Your task to perform on an android device: Search for the best coffee tables on Crate & Barrel Image 0: 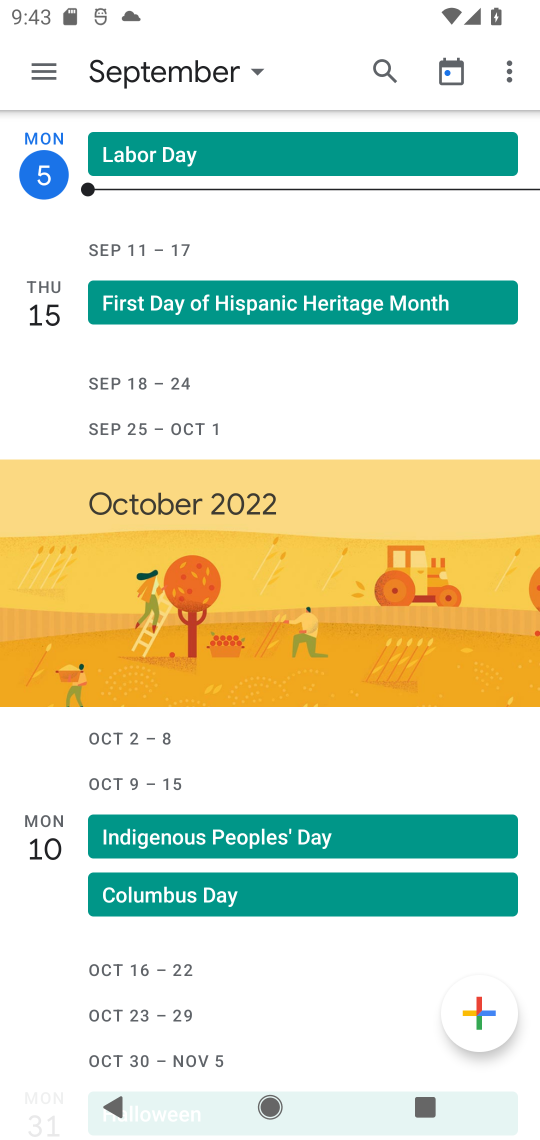
Step 0: press home button
Your task to perform on an android device: Search for the best coffee tables on Crate & Barrel Image 1: 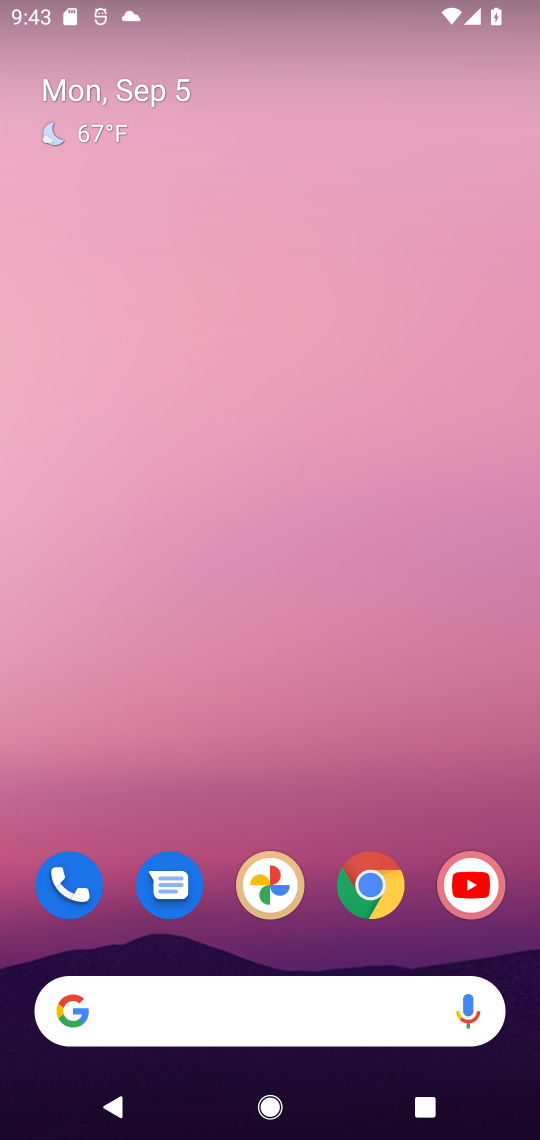
Step 1: click (342, 14)
Your task to perform on an android device: Search for the best coffee tables on Crate & Barrel Image 2: 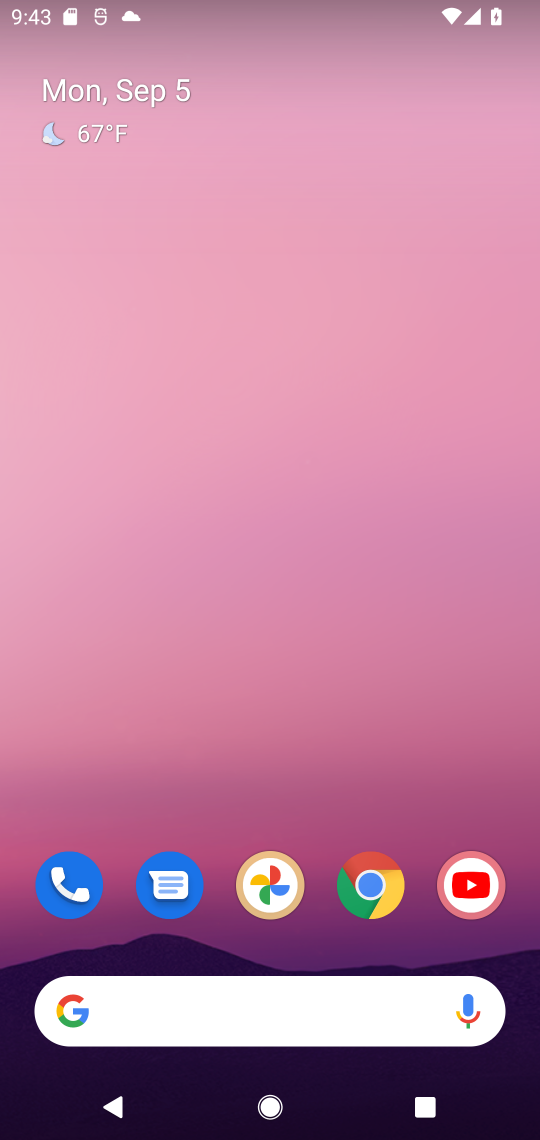
Step 2: click (274, 45)
Your task to perform on an android device: Search for the best coffee tables on Crate & Barrel Image 3: 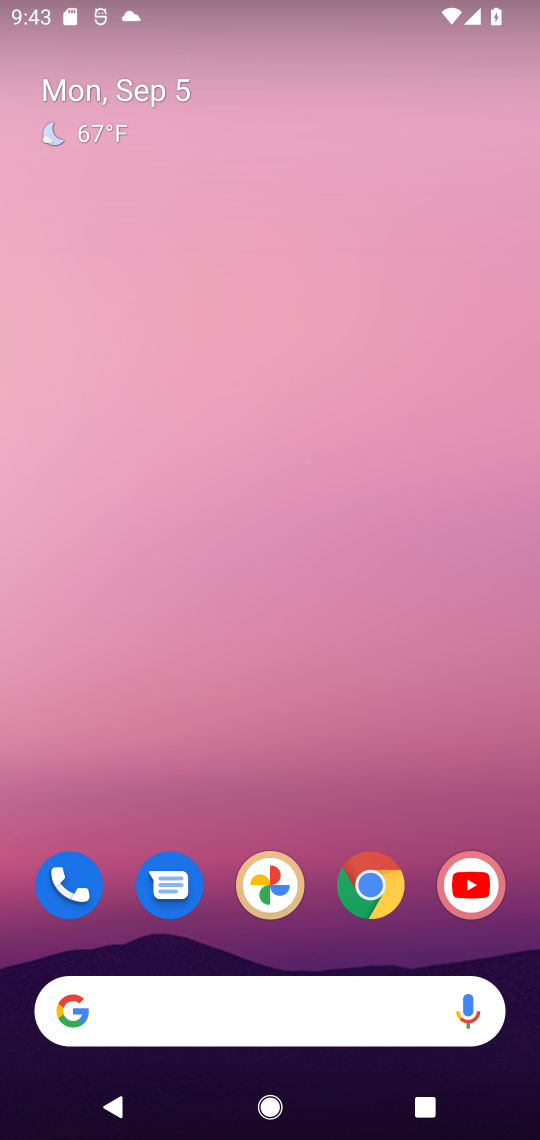
Step 3: drag from (301, 938) to (393, 45)
Your task to perform on an android device: Search for the best coffee tables on Crate & Barrel Image 4: 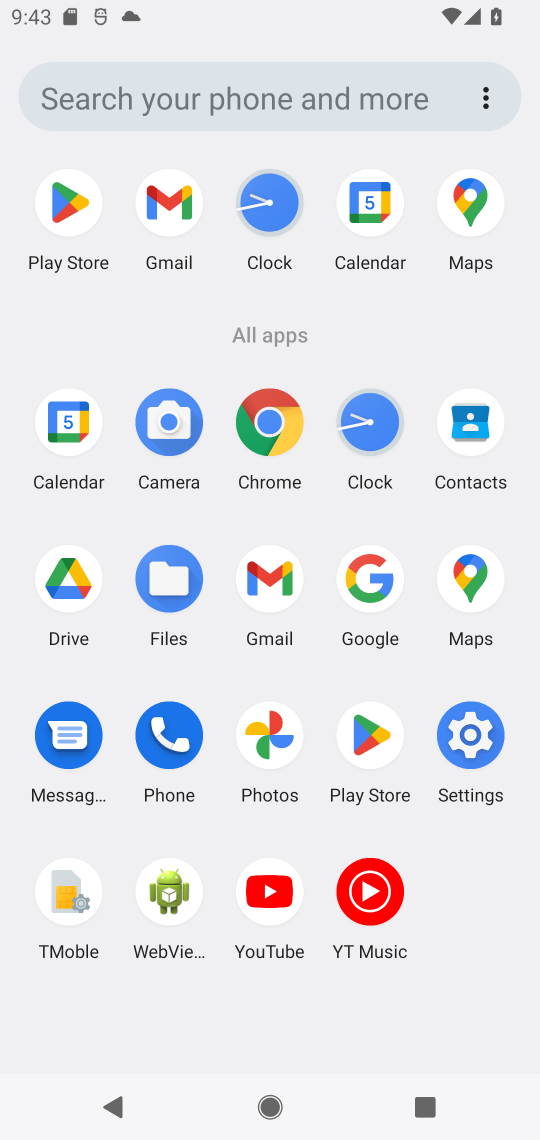
Step 4: click (360, 579)
Your task to perform on an android device: Search for the best coffee tables on Crate & Barrel Image 5: 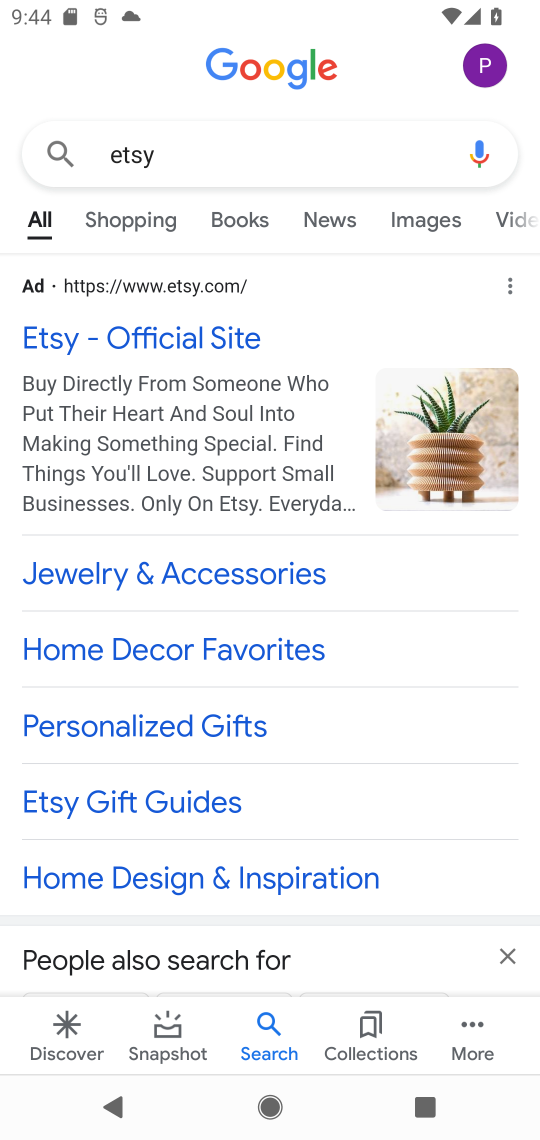
Step 5: click (276, 152)
Your task to perform on an android device: Search for the best coffee tables on Crate & Barrel Image 6: 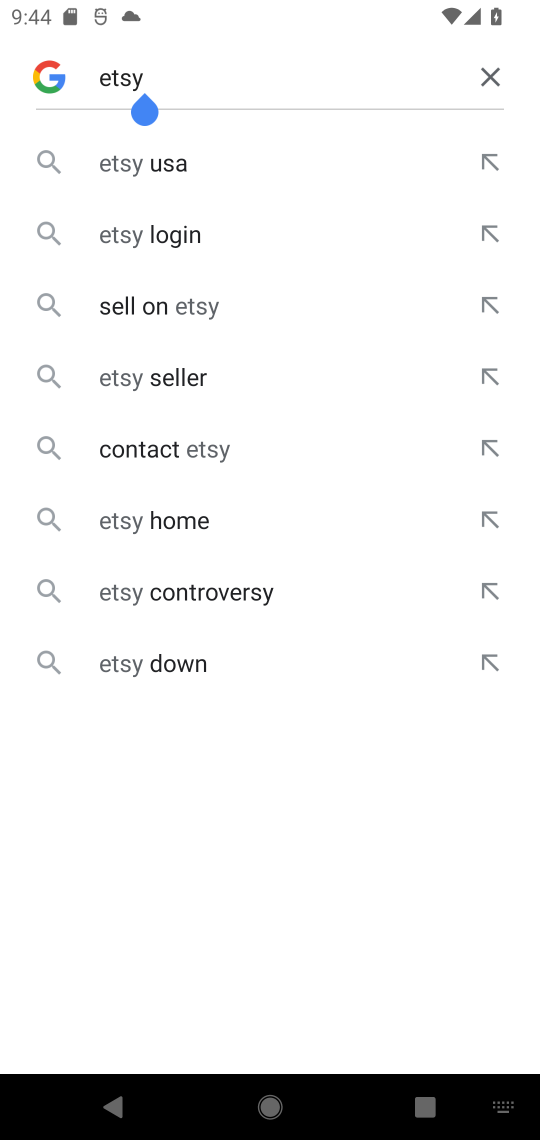
Step 6: click (493, 78)
Your task to perform on an android device: Search for the best coffee tables on Crate & Barrel Image 7: 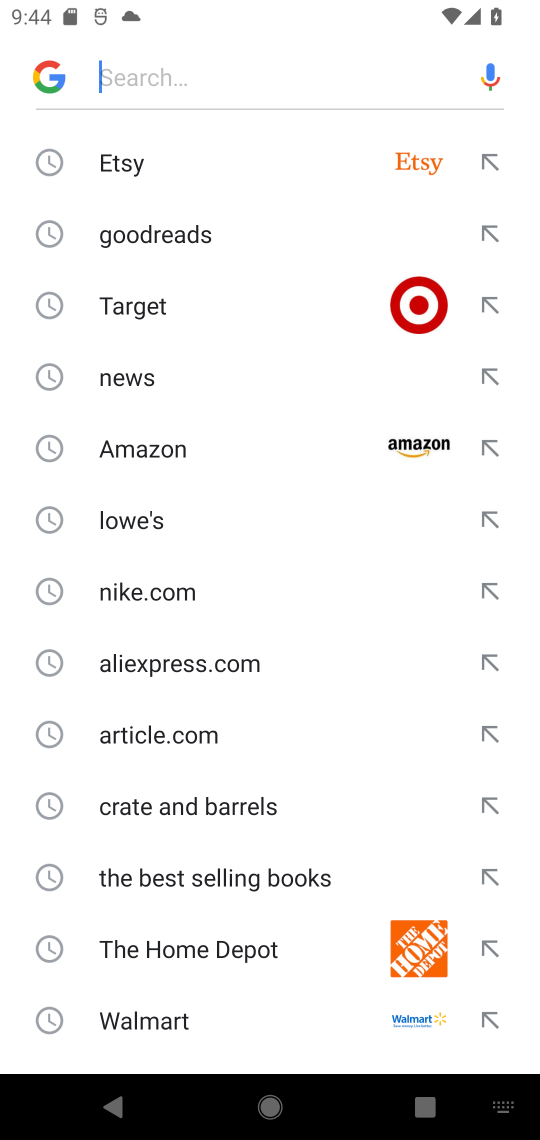
Step 7: type "Crate & Barrel"
Your task to perform on an android device: Search for the best coffee tables on Crate & Barrel Image 8: 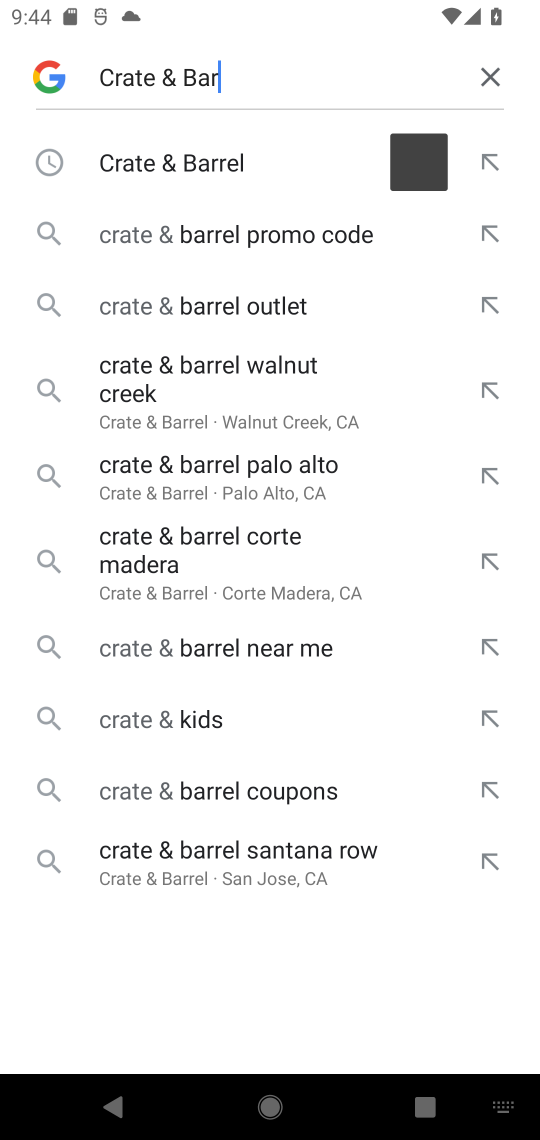
Step 8: type ""
Your task to perform on an android device: Search for the best coffee tables on Crate & Barrel Image 9: 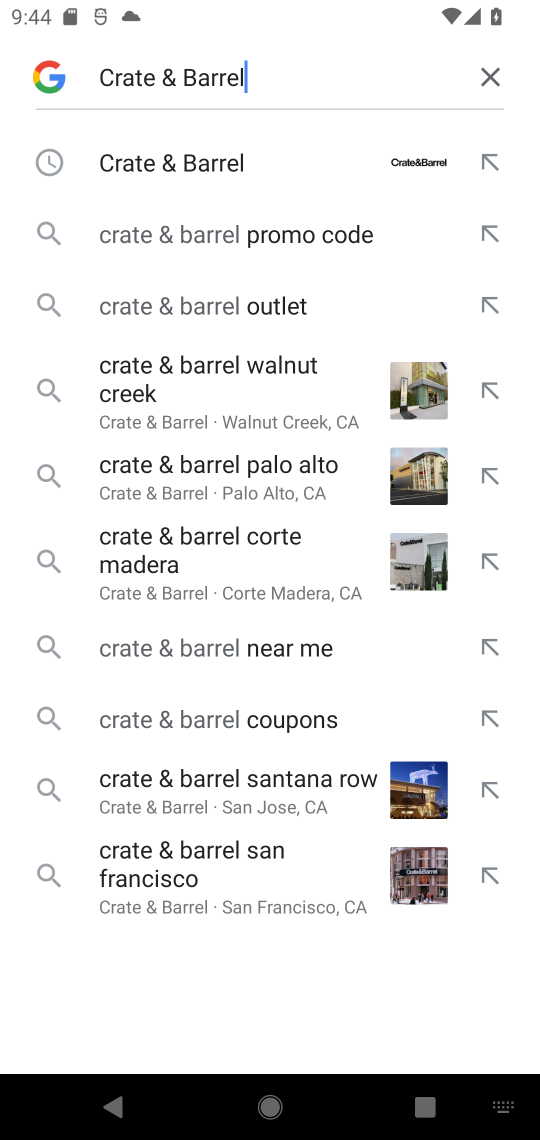
Step 9: click (188, 165)
Your task to perform on an android device: Search for the best coffee tables on Crate & Barrel Image 10: 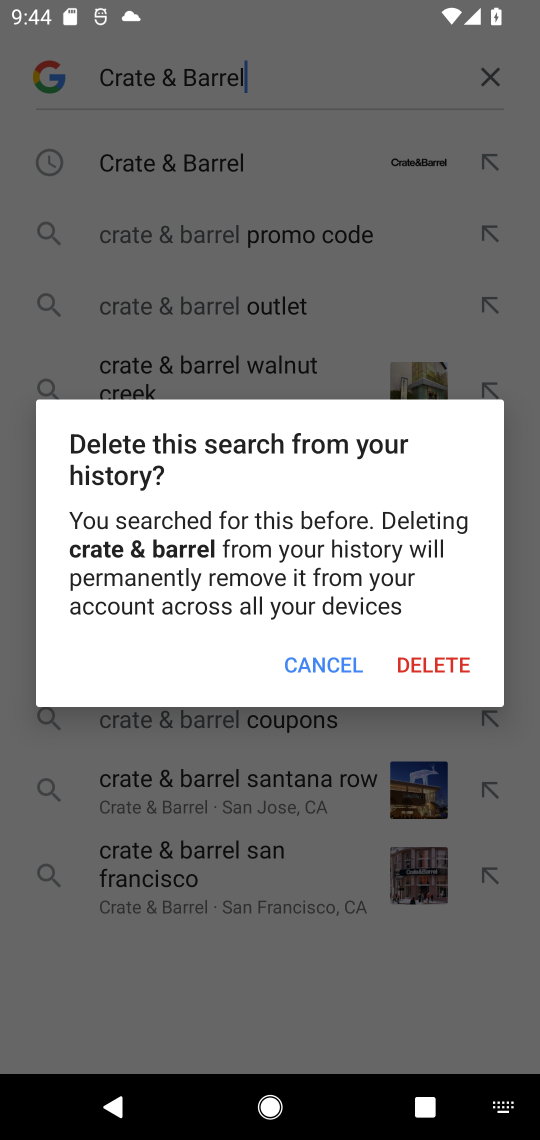
Step 10: click (305, 659)
Your task to perform on an android device: Search for the best coffee tables on Crate & Barrel Image 11: 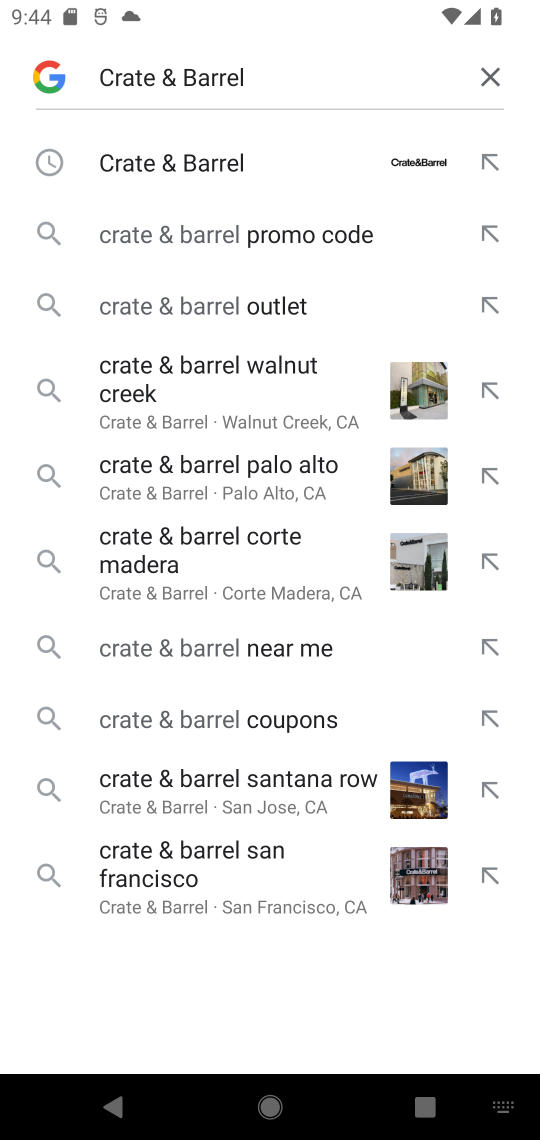
Step 11: click (189, 160)
Your task to perform on an android device: Search for the best coffee tables on Crate & Barrel Image 12: 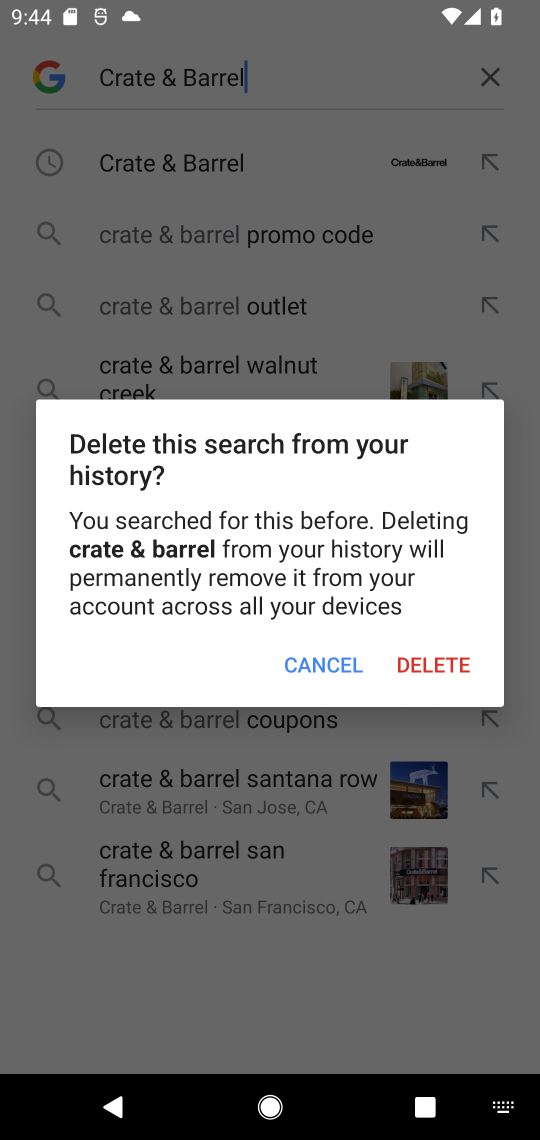
Step 12: click (342, 659)
Your task to perform on an android device: Search for the best coffee tables on Crate & Barrel Image 13: 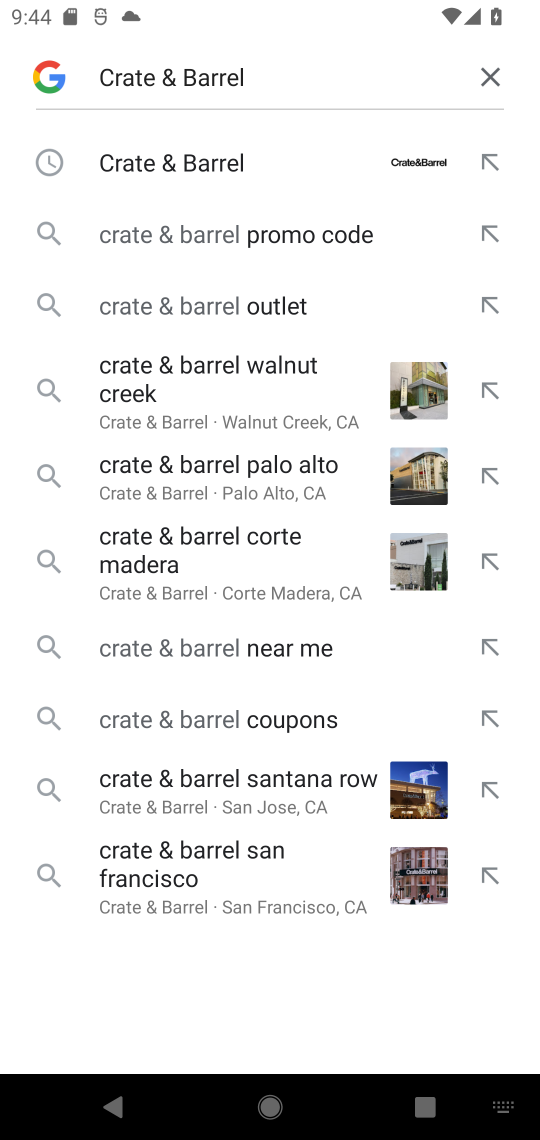
Step 13: click (138, 149)
Your task to perform on an android device: Search for the best coffee tables on Crate & Barrel Image 14: 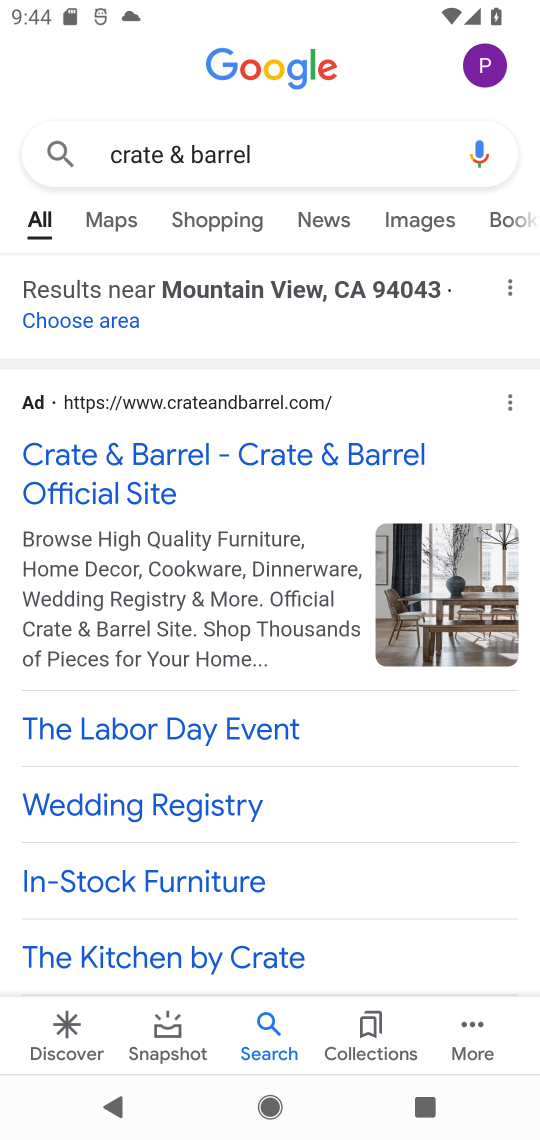
Step 14: click (143, 449)
Your task to perform on an android device: Search for the best coffee tables on Crate & Barrel Image 15: 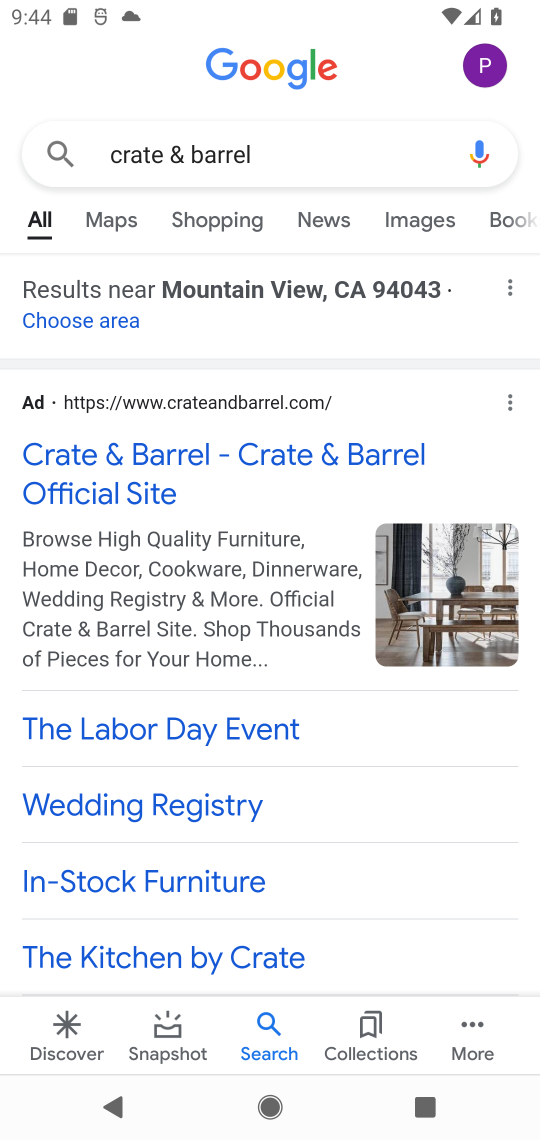
Step 15: click (96, 448)
Your task to perform on an android device: Search for the best coffee tables on Crate & Barrel Image 16: 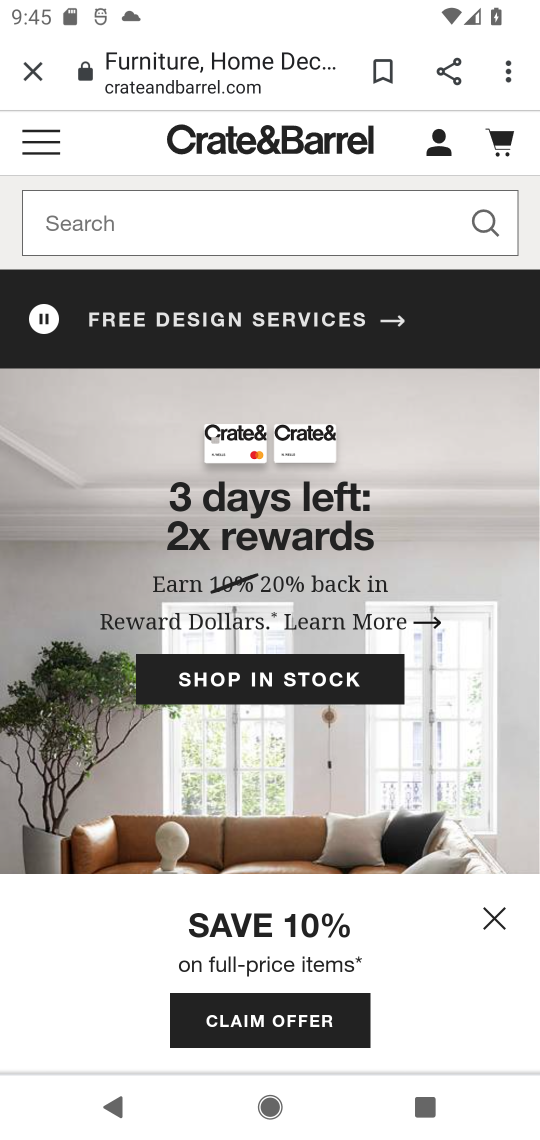
Step 16: click (262, 220)
Your task to perform on an android device: Search for the best coffee tables on Crate & Barrel Image 17: 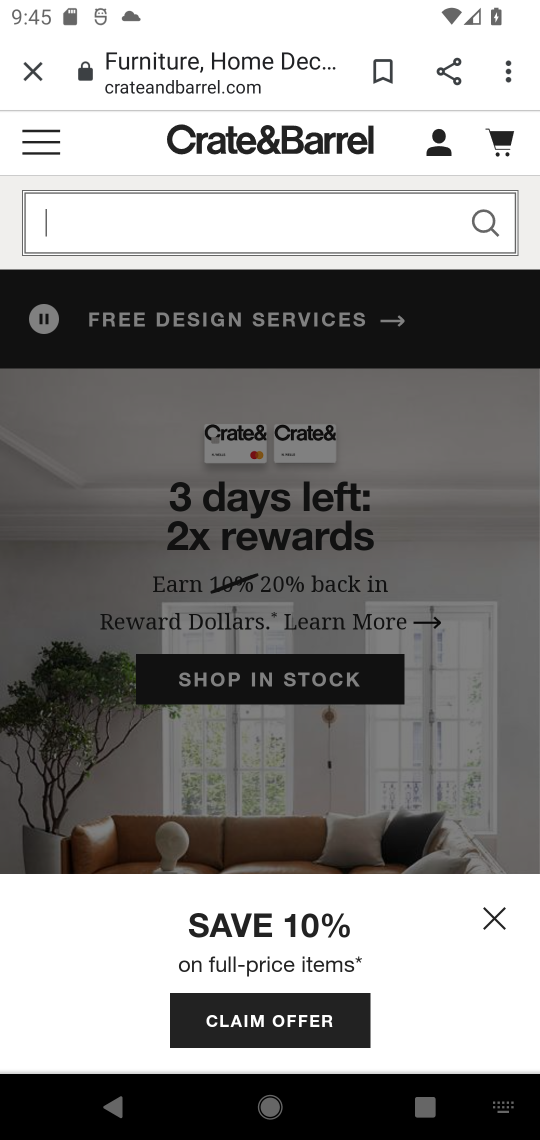
Step 17: type "coffee tables"
Your task to perform on an android device: Search for the best coffee tables on Crate & Barrel Image 18: 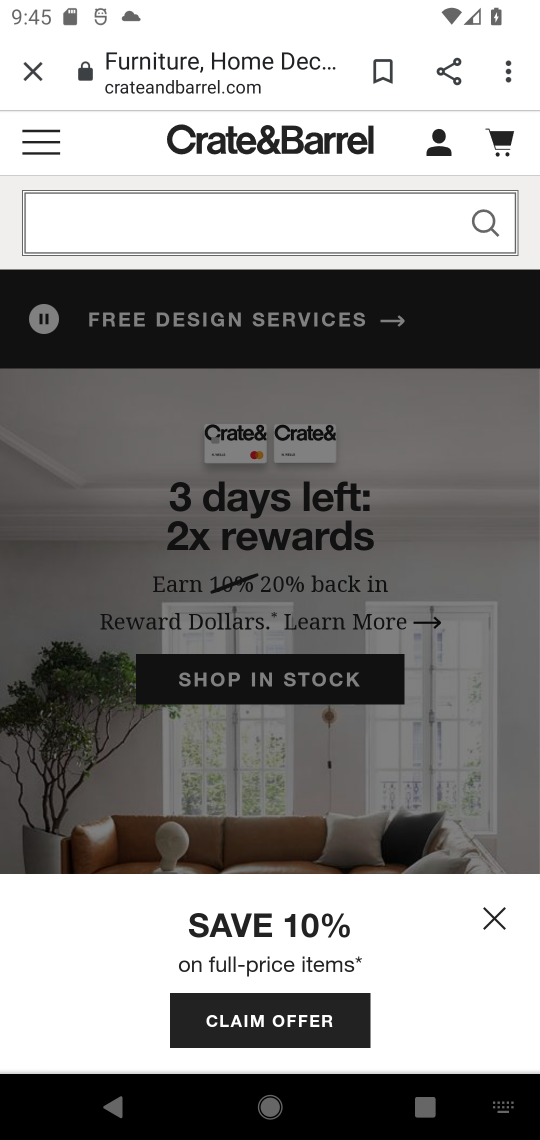
Step 18: type ""
Your task to perform on an android device: Search for the best coffee tables on Crate & Barrel Image 19: 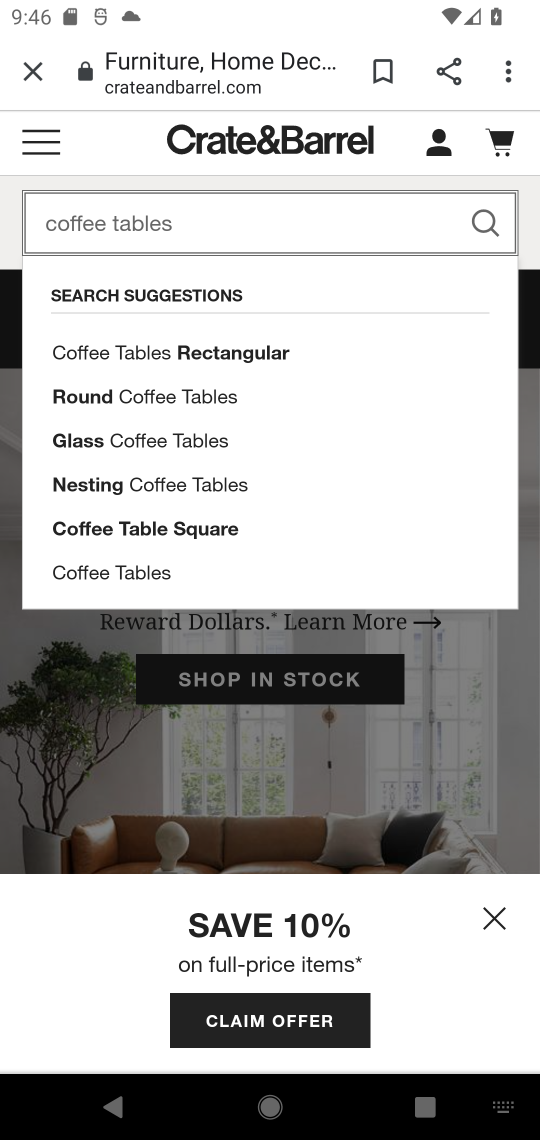
Step 19: click (121, 572)
Your task to perform on an android device: Search for the best coffee tables on Crate & Barrel Image 20: 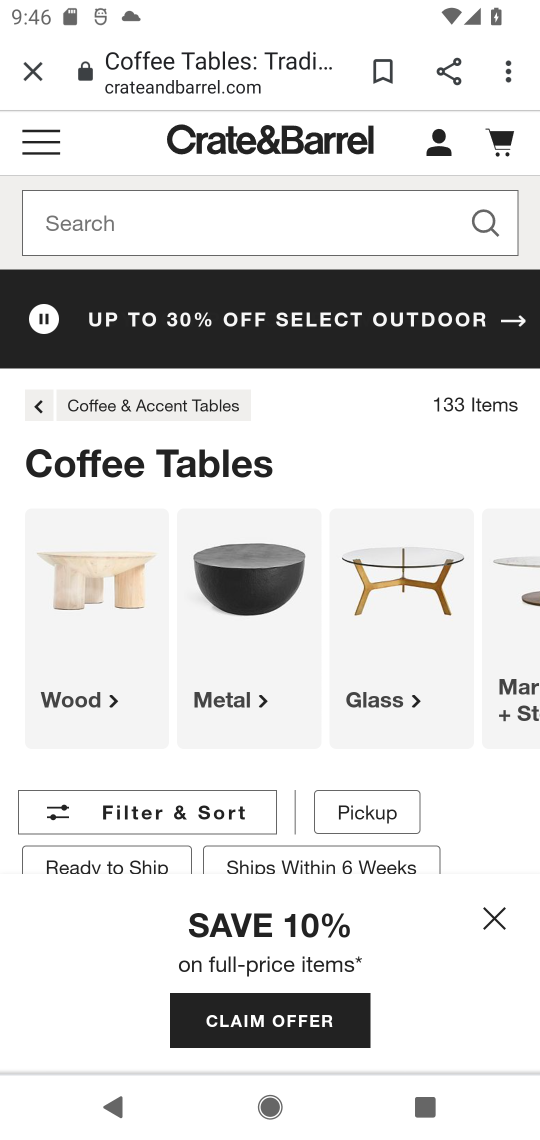
Step 20: task complete